Your task to perform on an android device: Go to wifi settings Image 0: 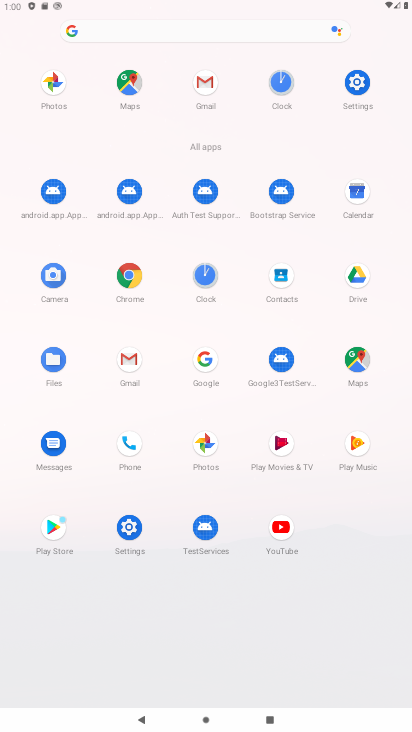
Step 0: click (130, 525)
Your task to perform on an android device: Go to wifi settings Image 1: 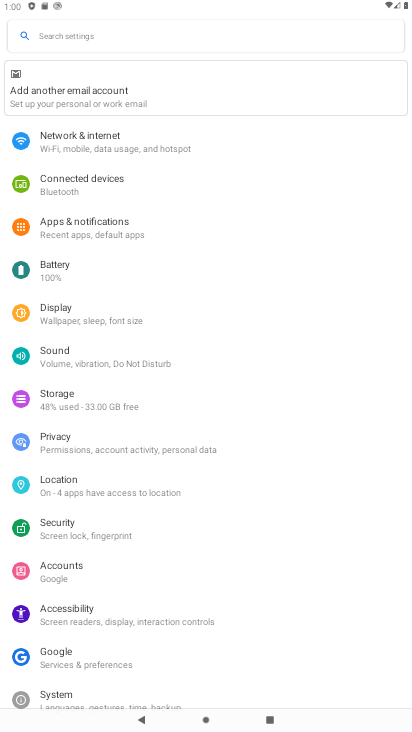
Step 1: click (75, 145)
Your task to perform on an android device: Go to wifi settings Image 2: 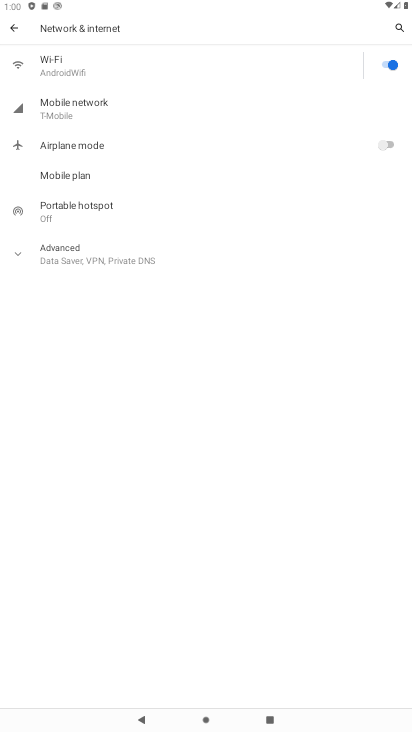
Step 2: click (70, 58)
Your task to perform on an android device: Go to wifi settings Image 3: 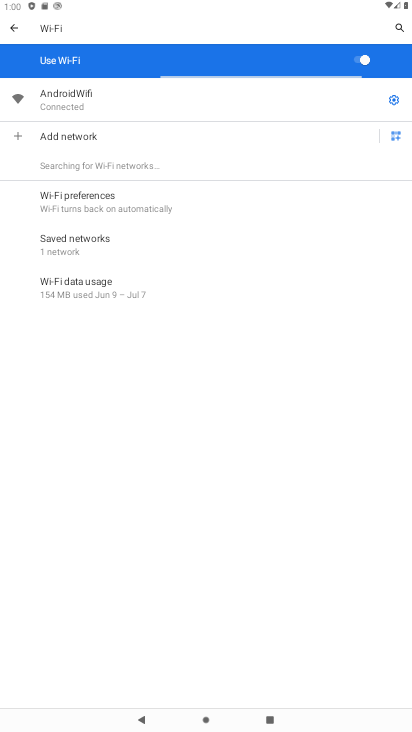
Step 3: task complete